Your task to perform on an android device: turn pop-ups on in chrome Image 0: 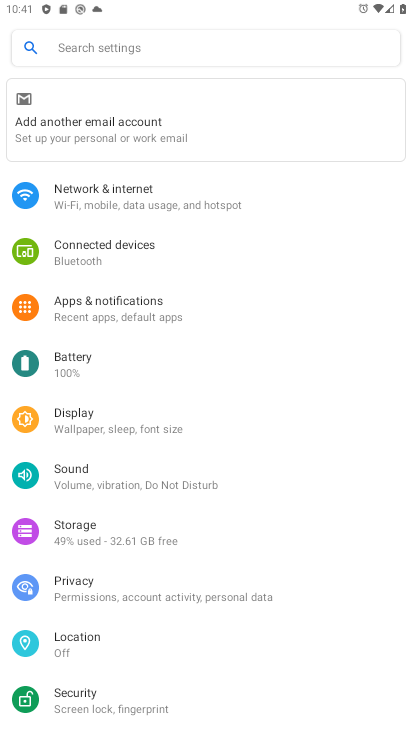
Step 0: press home button
Your task to perform on an android device: turn pop-ups on in chrome Image 1: 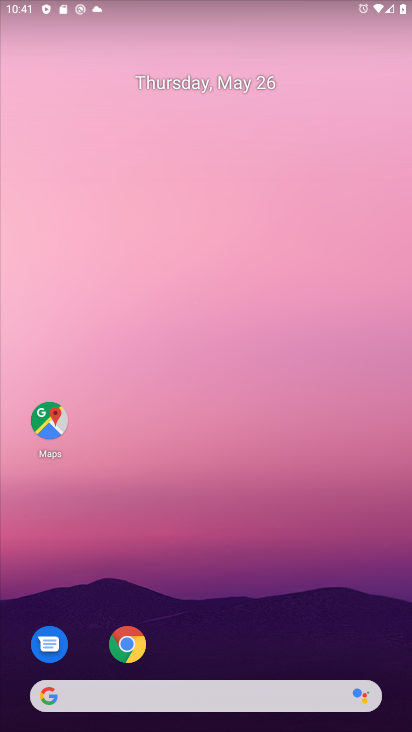
Step 1: click (130, 634)
Your task to perform on an android device: turn pop-ups on in chrome Image 2: 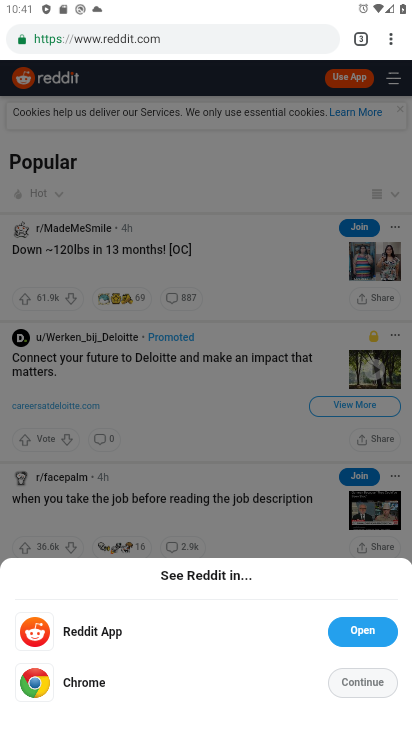
Step 2: click (367, 671)
Your task to perform on an android device: turn pop-ups on in chrome Image 3: 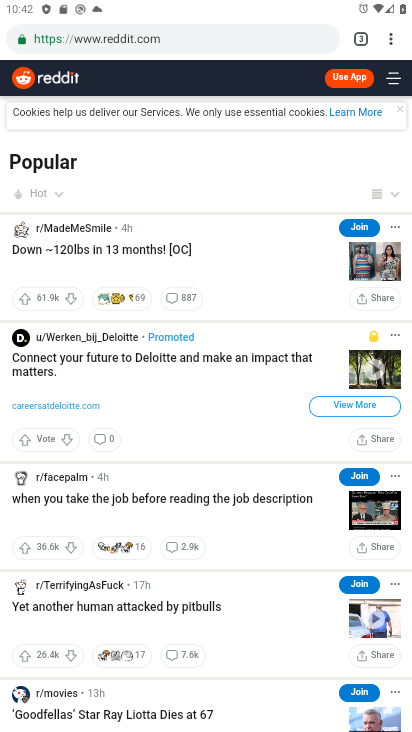
Step 3: click (387, 40)
Your task to perform on an android device: turn pop-ups on in chrome Image 4: 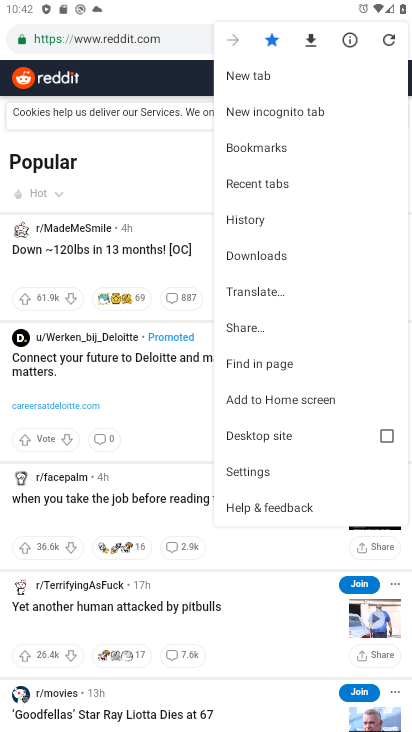
Step 4: click (279, 476)
Your task to perform on an android device: turn pop-ups on in chrome Image 5: 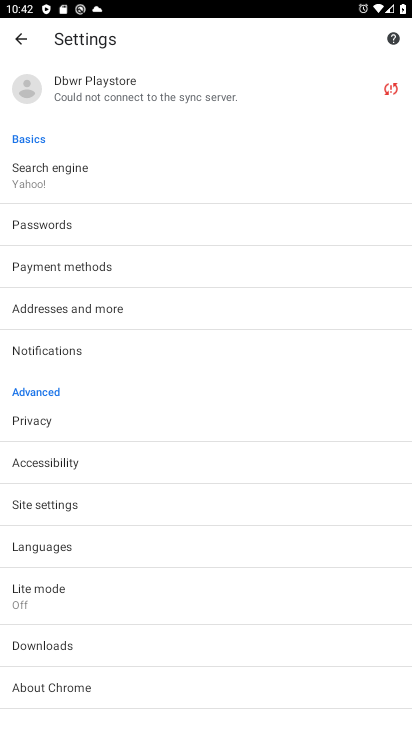
Step 5: drag from (141, 658) to (193, 305)
Your task to perform on an android device: turn pop-ups on in chrome Image 6: 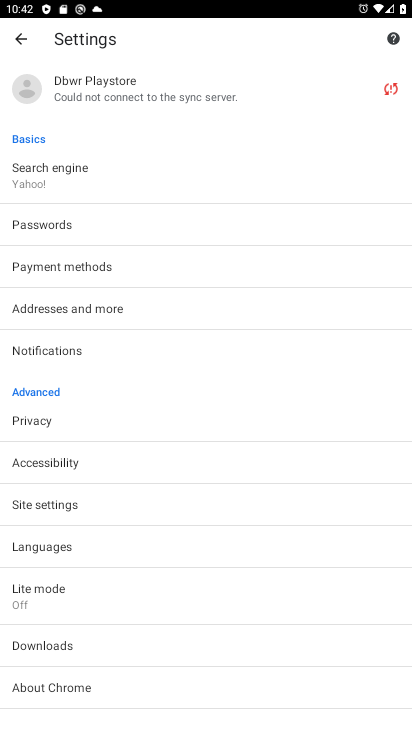
Step 6: click (93, 493)
Your task to perform on an android device: turn pop-ups on in chrome Image 7: 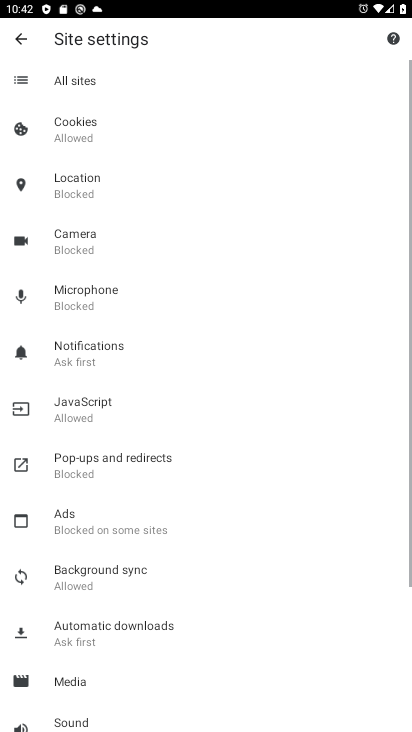
Step 7: click (157, 457)
Your task to perform on an android device: turn pop-ups on in chrome Image 8: 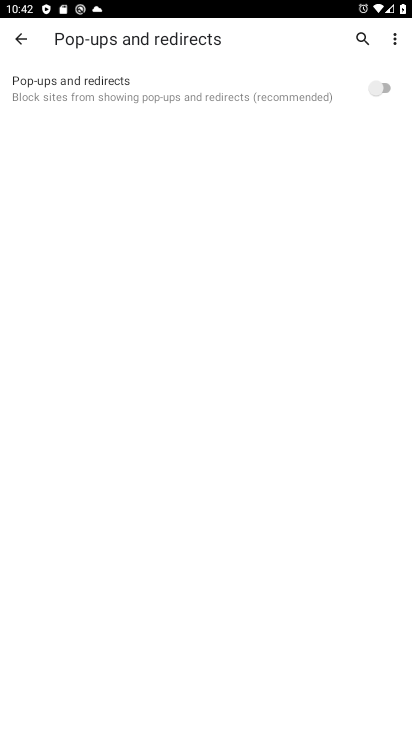
Step 8: click (382, 88)
Your task to perform on an android device: turn pop-ups on in chrome Image 9: 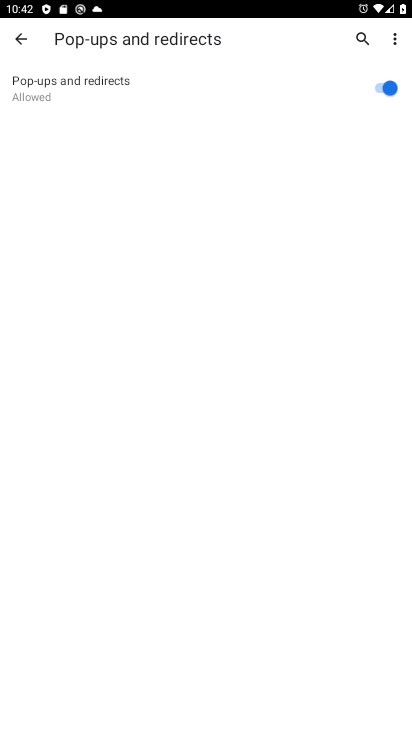
Step 9: task complete